Your task to perform on an android device: Search for pizza restaurants on Maps Image 0: 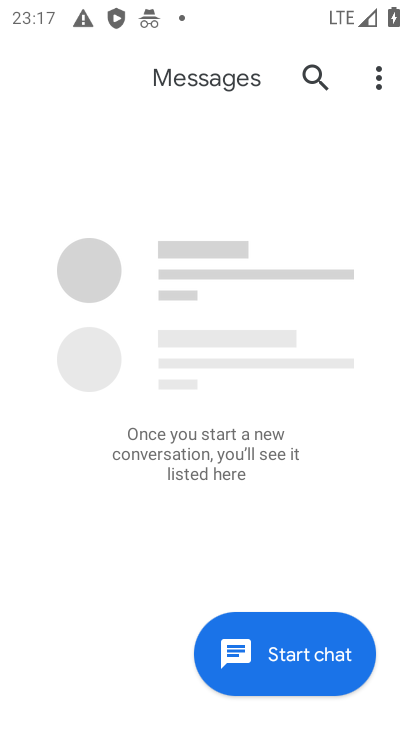
Step 0: press back button
Your task to perform on an android device: Search for pizza restaurants on Maps Image 1: 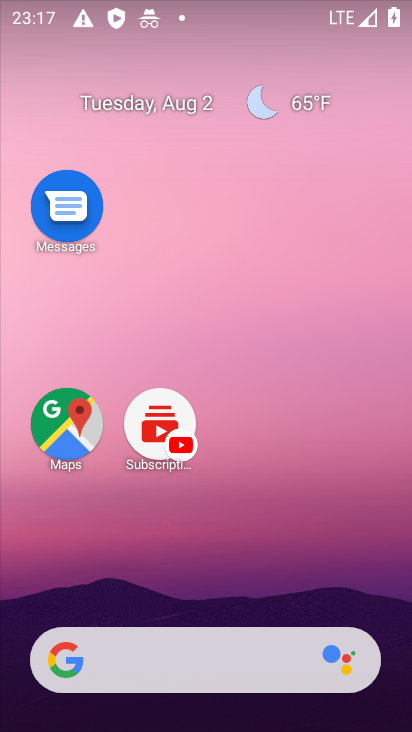
Step 1: click (206, 191)
Your task to perform on an android device: Search for pizza restaurants on Maps Image 2: 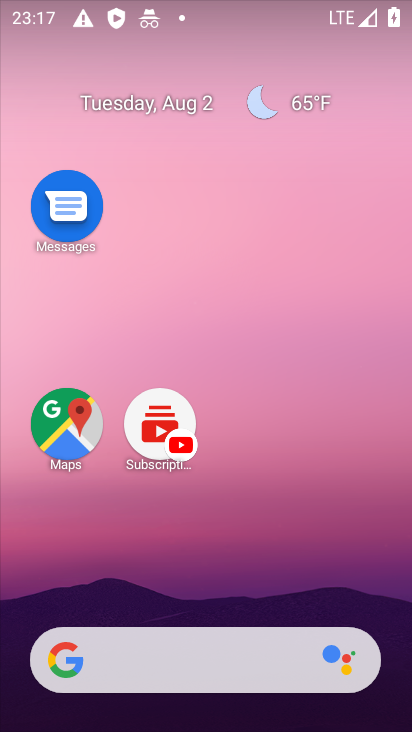
Step 2: click (233, 319)
Your task to perform on an android device: Search for pizza restaurants on Maps Image 3: 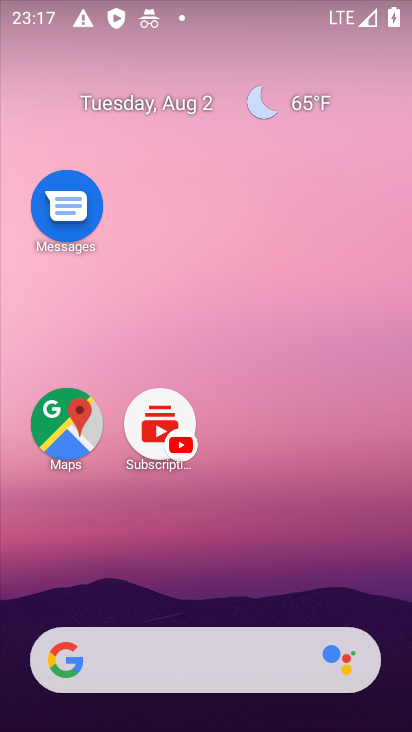
Step 3: click (211, 228)
Your task to perform on an android device: Search for pizza restaurants on Maps Image 4: 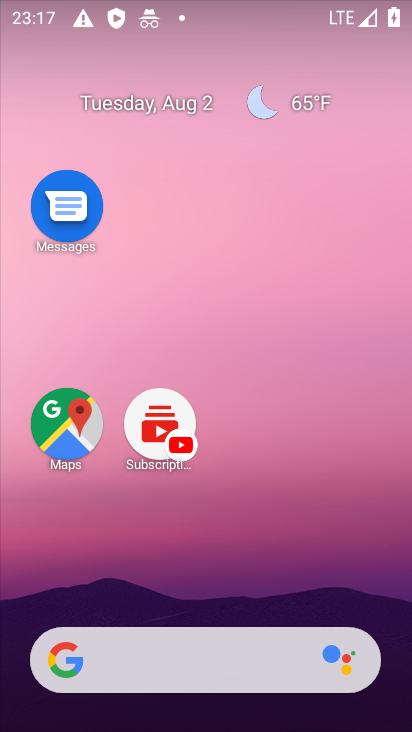
Step 4: click (54, 425)
Your task to perform on an android device: Search for pizza restaurants on Maps Image 5: 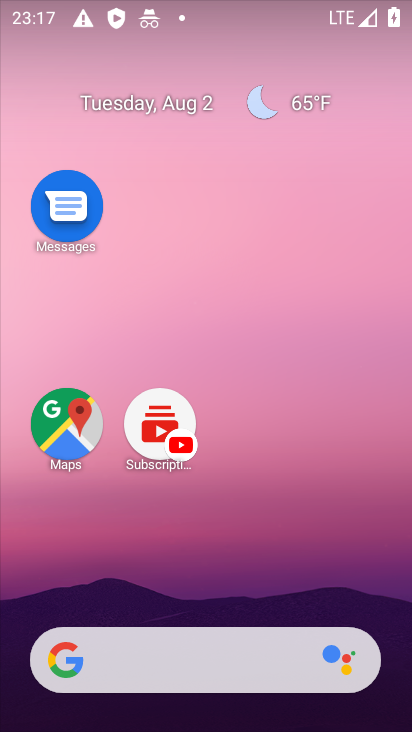
Step 5: drag from (191, 664) to (196, 423)
Your task to perform on an android device: Search for pizza restaurants on Maps Image 6: 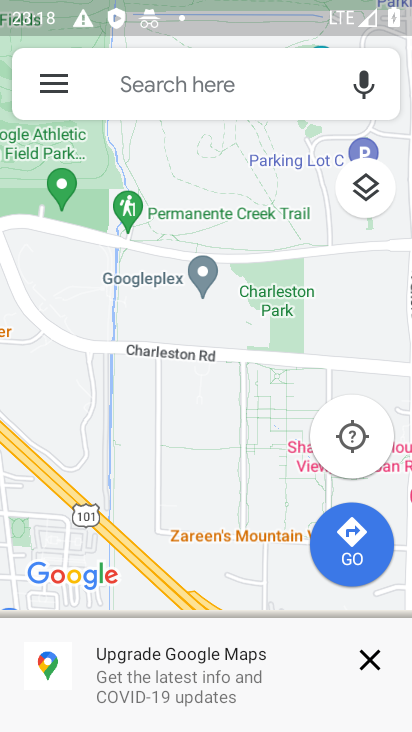
Step 6: click (134, 88)
Your task to perform on an android device: Search for pizza restaurants on Maps Image 7: 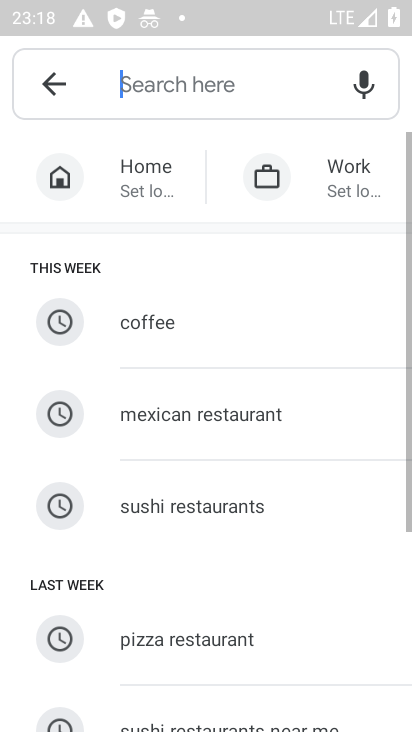
Step 7: click (139, 94)
Your task to perform on an android device: Search for pizza restaurants on Maps Image 8: 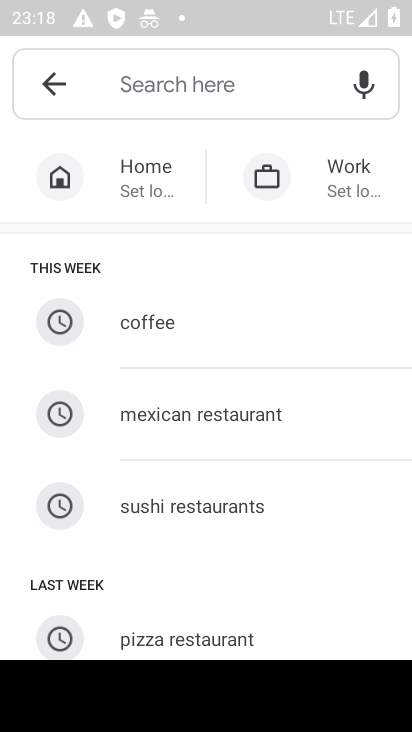
Step 8: click (182, 633)
Your task to perform on an android device: Search for pizza restaurants on Maps Image 9: 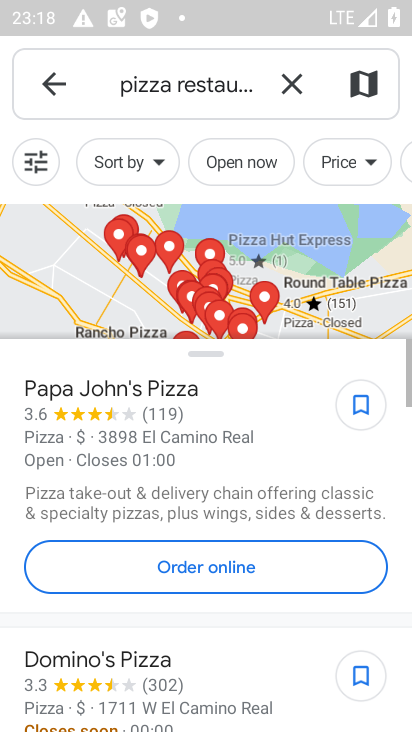
Step 9: task complete